Your task to perform on an android device: turn off priority inbox in the gmail app Image 0: 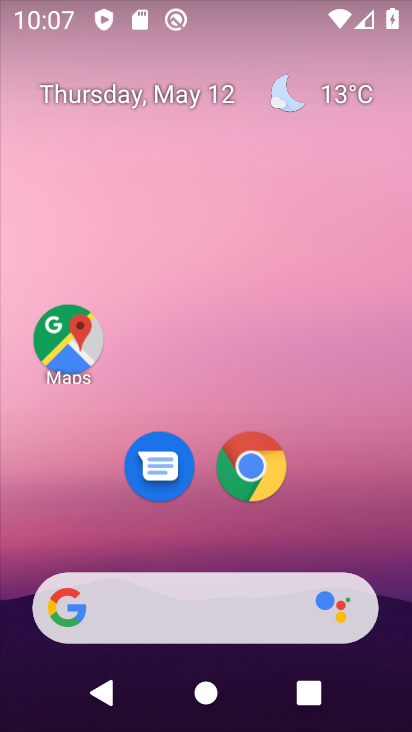
Step 0: drag from (170, 562) to (238, 12)
Your task to perform on an android device: turn off priority inbox in the gmail app Image 1: 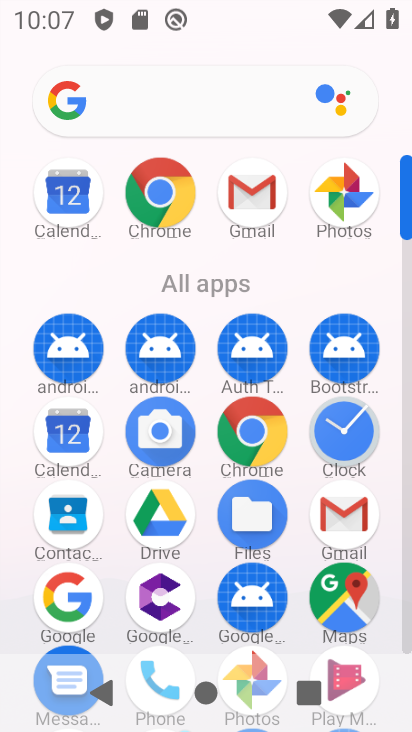
Step 1: click (244, 191)
Your task to perform on an android device: turn off priority inbox in the gmail app Image 2: 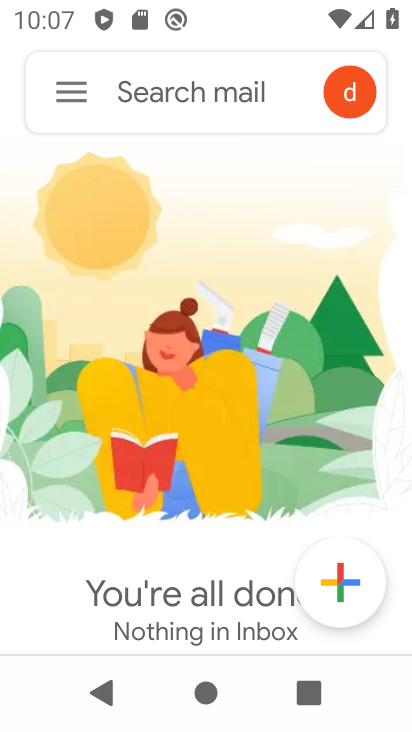
Step 2: click (58, 90)
Your task to perform on an android device: turn off priority inbox in the gmail app Image 3: 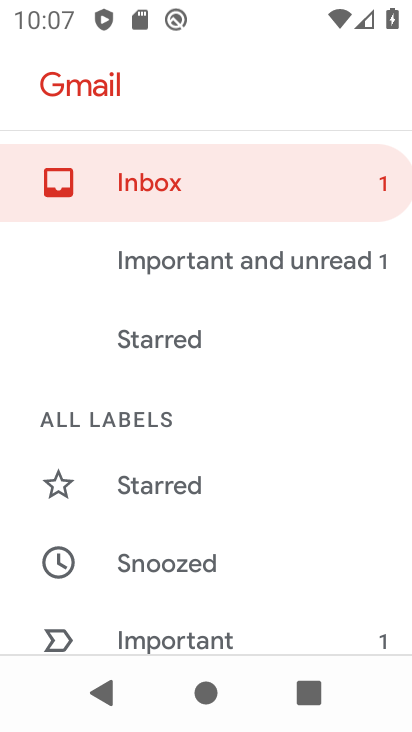
Step 3: drag from (157, 569) to (228, 48)
Your task to perform on an android device: turn off priority inbox in the gmail app Image 4: 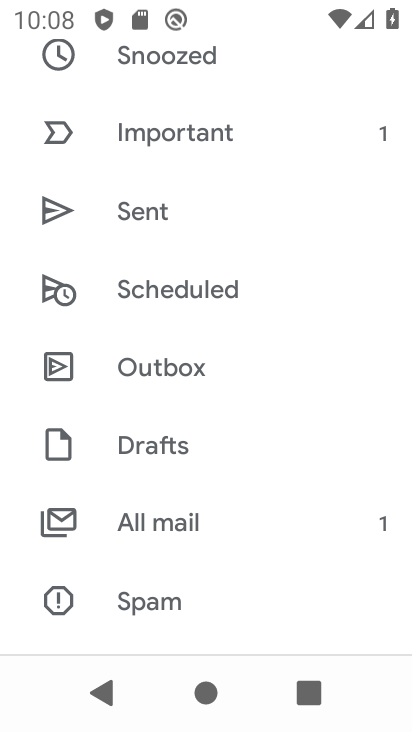
Step 4: drag from (190, 624) to (255, 59)
Your task to perform on an android device: turn off priority inbox in the gmail app Image 5: 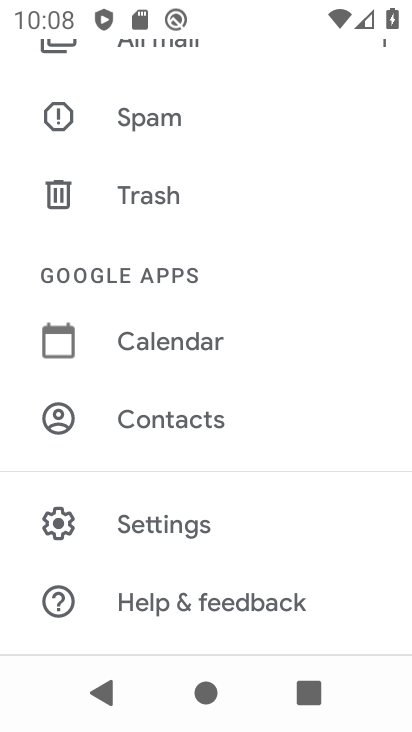
Step 5: click (183, 521)
Your task to perform on an android device: turn off priority inbox in the gmail app Image 6: 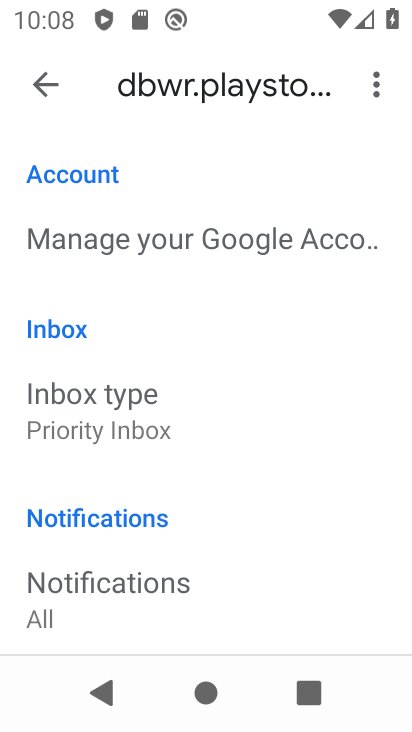
Step 6: click (98, 406)
Your task to perform on an android device: turn off priority inbox in the gmail app Image 7: 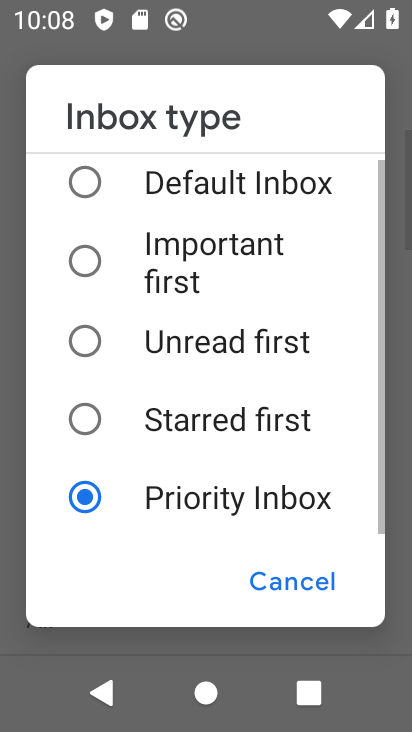
Step 7: click (89, 175)
Your task to perform on an android device: turn off priority inbox in the gmail app Image 8: 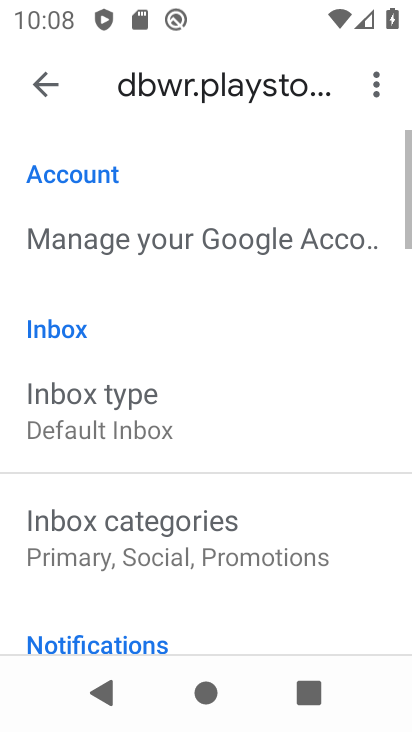
Step 8: task complete